Your task to perform on an android device: change the clock display to analog Image 0: 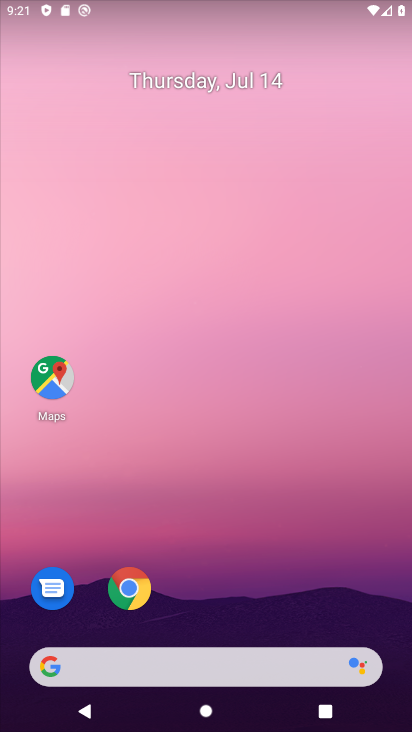
Step 0: drag from (181, 646) to (181, 275)
Your task to perform on an android device: change the clock display to analog Image 1: 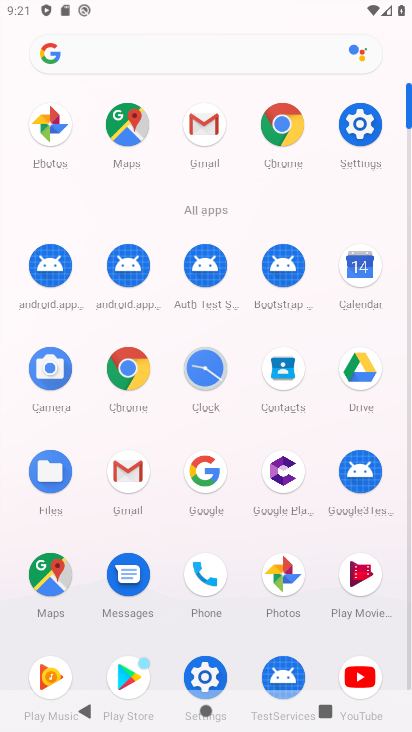
Step 1: click (208, 374)
Your task to perform on an android device: change the clock display to analog Image 2: 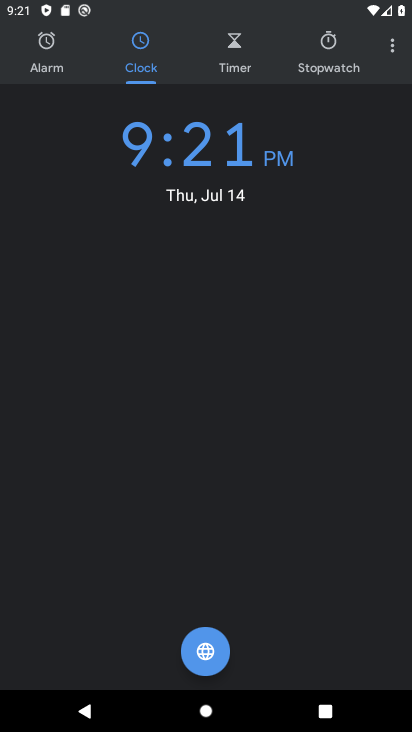
Step 2: click (389, 49)
Your task to perform on an android device: change the clock display to analog Image 3: 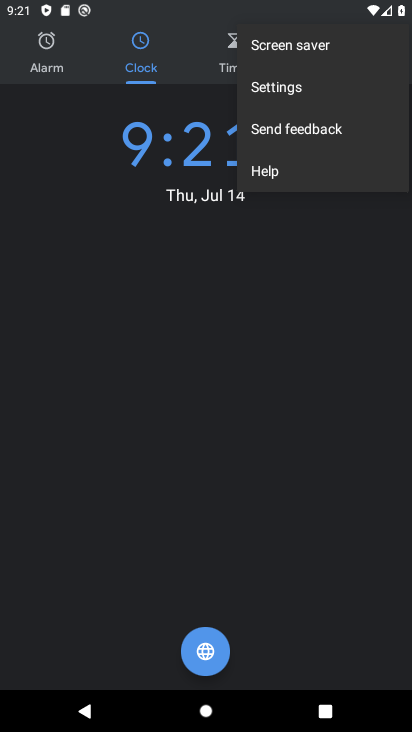
Step 3: click (269, 93)
Your task to perform on an android device: change the clock display to analog Image 4: 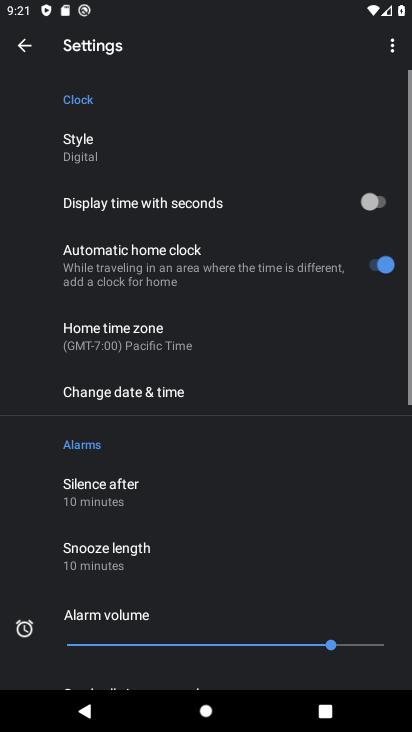
Step 4: click (105, 148)
Your task to perform on an android device: change the clock display to analog Image 5: 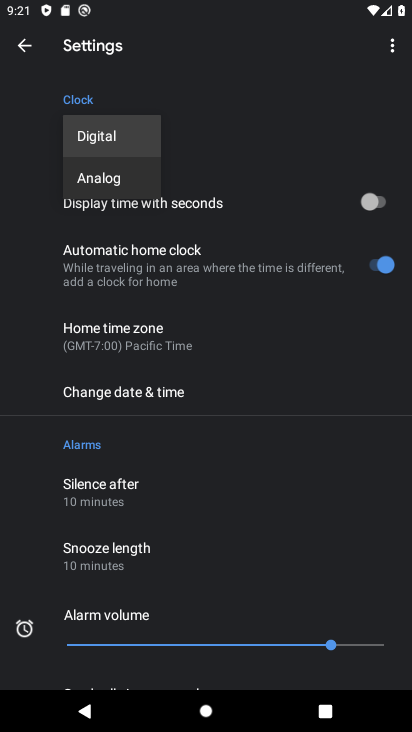
Step 5: click (112, 181)
Your task to perform on an android device: change the clock display to analog Image 6: 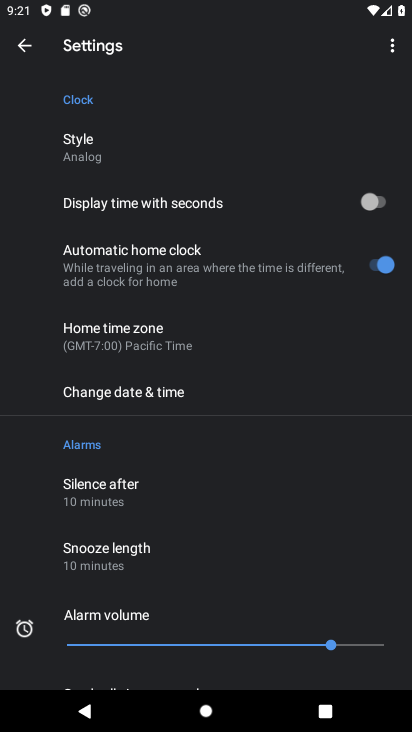
Step 6: task complete